Your task to perform on an android device: Add usb-c to usb-a to the cart on newegg Image 0: 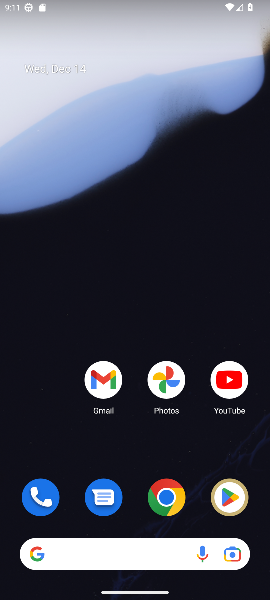
Step 0: click (164, 503)
Your task to perform on an android device: Add usb-c to usb-a to the cart on newegg Image 1: 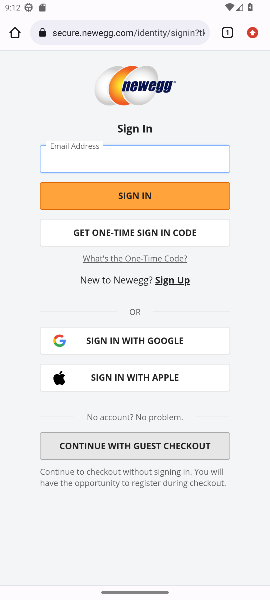
Step 1: click (122, 38)
Your task to perform on an android device: Add usb-c to usb-a to the cart on newegg Image 2: 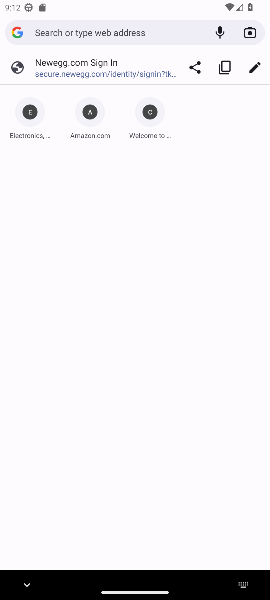
Step 2: type "newegg"
Your task to perform on an android device: Add usb-c to usb-a to the cart on newegg Image 3: 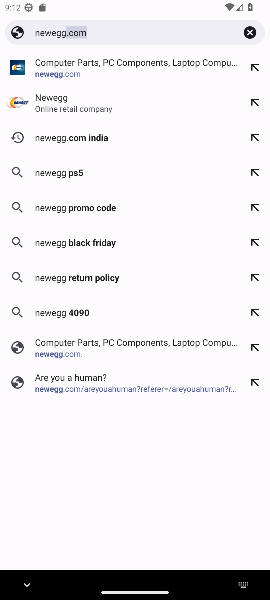
Step 3: click (75, 73)
Your task to perform on an android device: Add usb-c to usb-a to the cart on newegg Image 4: 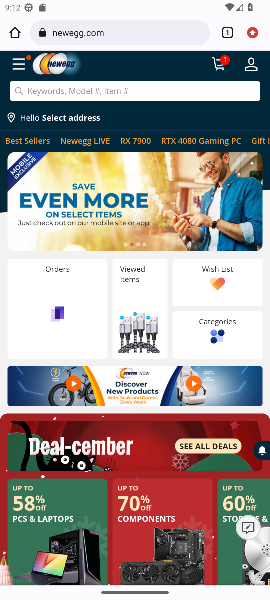
Step 4: click (91, 96)
Your task to perform on an android device: Add usb-c to usb-a to the cart on newegg Image 5: 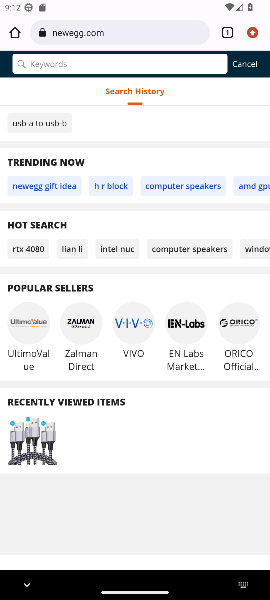
Step 5: type "usb-c to usb-a"
Your task to perform on an android device: Add usb-c to usb-a to the cart on newegg Image 6: 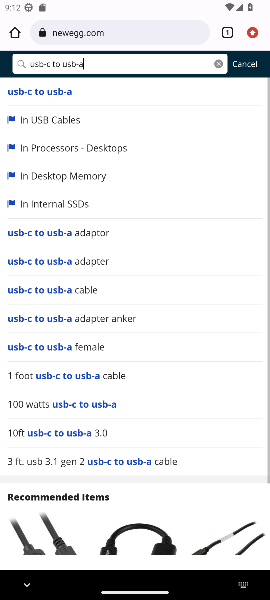
Step 6: press enter
Your task to perform on an android device: Add usb-c to usb-a to the cart on newegg Image 7: 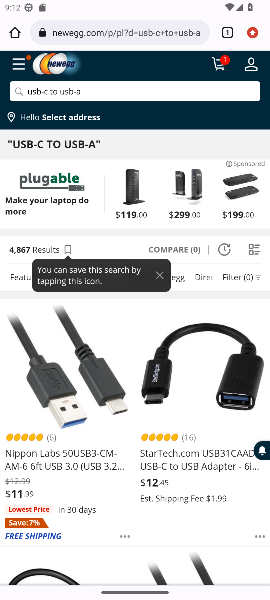
Step 7: click (55, 380)
Your task to perform on an android device: Add usb-c to usb-a to the cart on newegg Image 8: 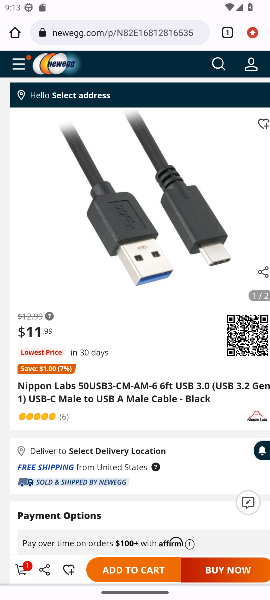
Step 8: click (128, 569)
Your task to perform on an android device: Add usb-c to usb-a to the cart on newegg Image 9: 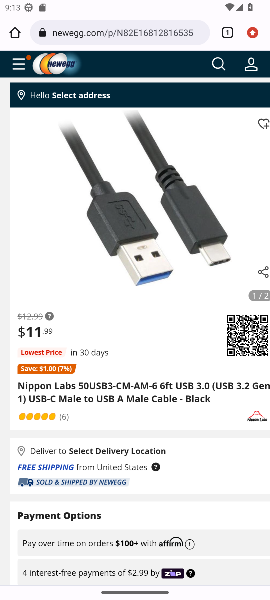
Step 9: task complete